Your task to perform on an android device: turn on showing notifications on the lock screen Image 0: 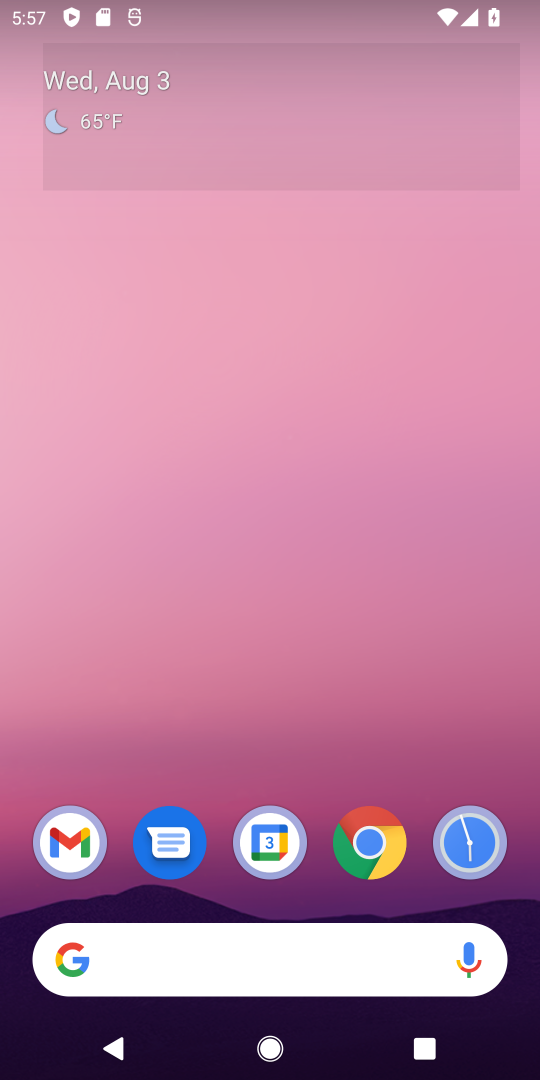
Step 0: drag from (188, 989) to (272, 245)
Your task to perform on an android device: turn on showing notifications on the lock screen Image 1: 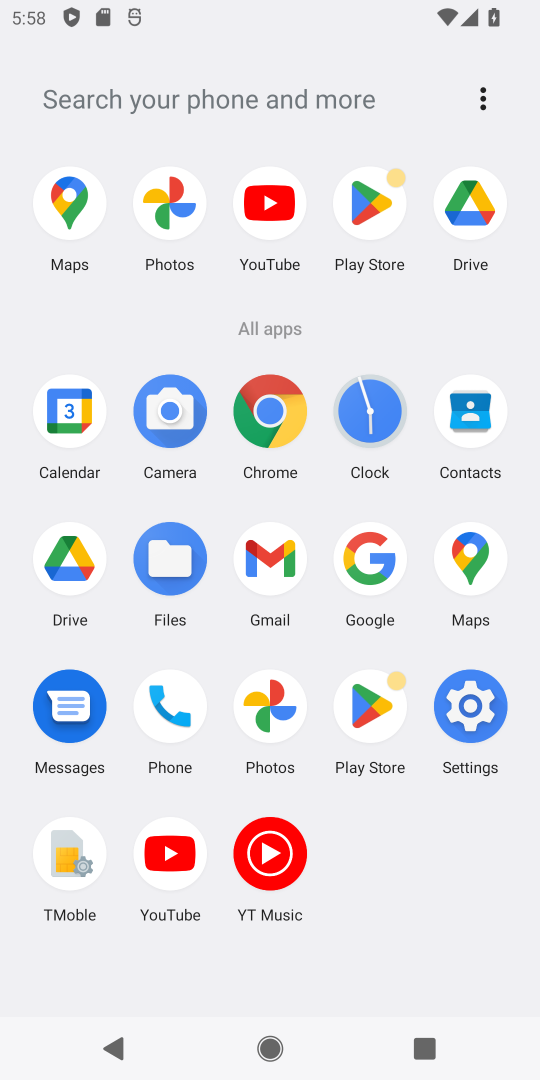
Step 1: click (484, 704)
Your task to perform on an android device: turn on showing notifications on the lock screen Image 2: 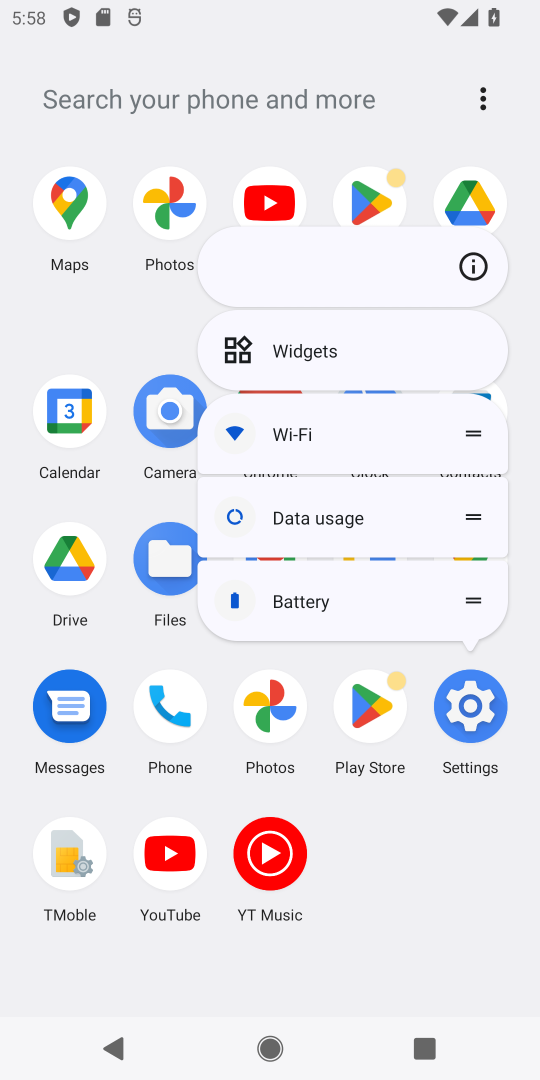
Step 2: click (484, 704)
Your task to perform on an android device: turn on showing notifications on the lock screen Image 3: 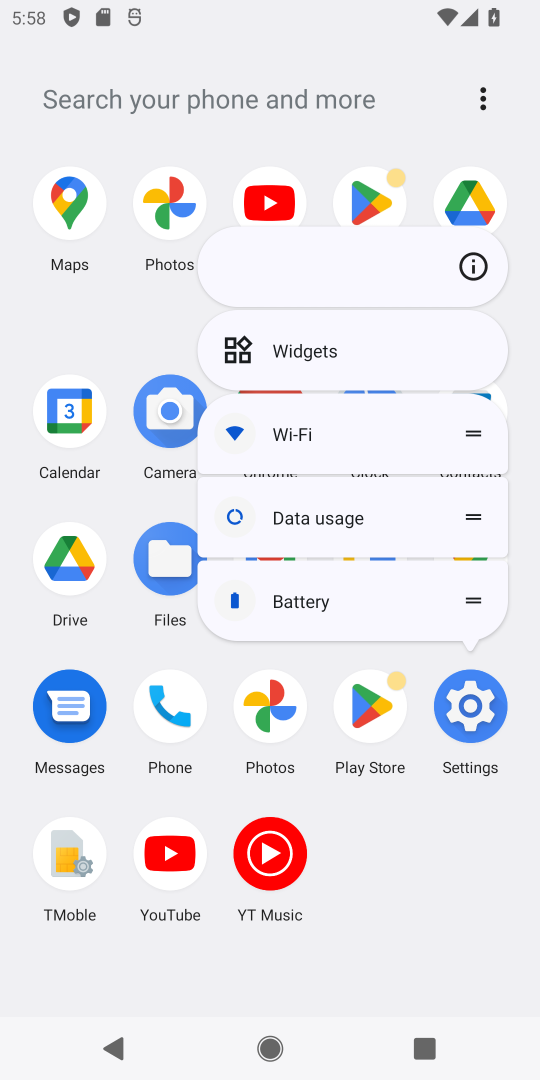
Step 3: click (484, 704)
Your task to perform on an android device: turn on showing notifications on the lock screen Image 4: 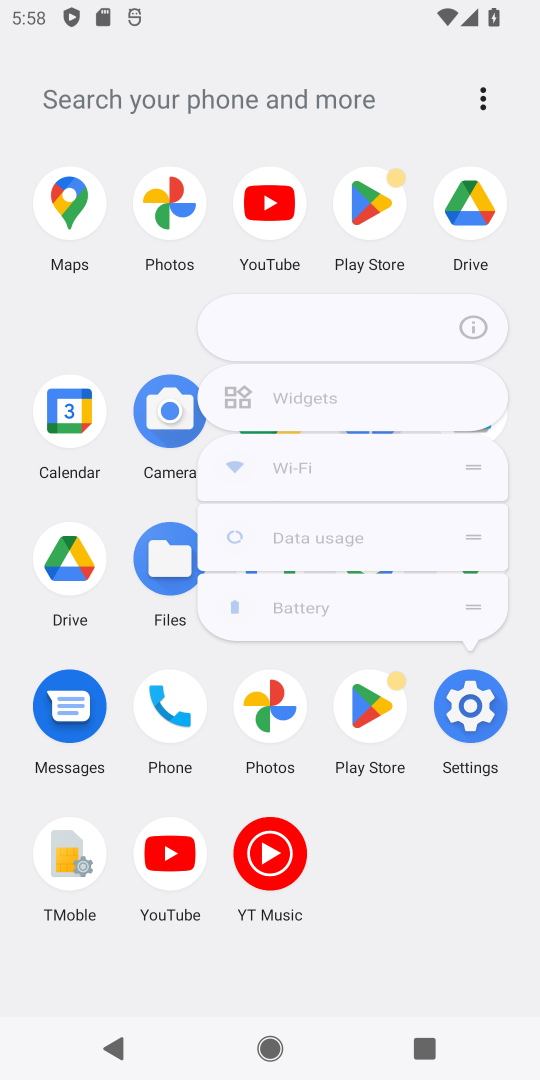
Step 4: click (484, 704)
Your task to perform on an android device: turn on showing notifications on the lock screen Image 5: 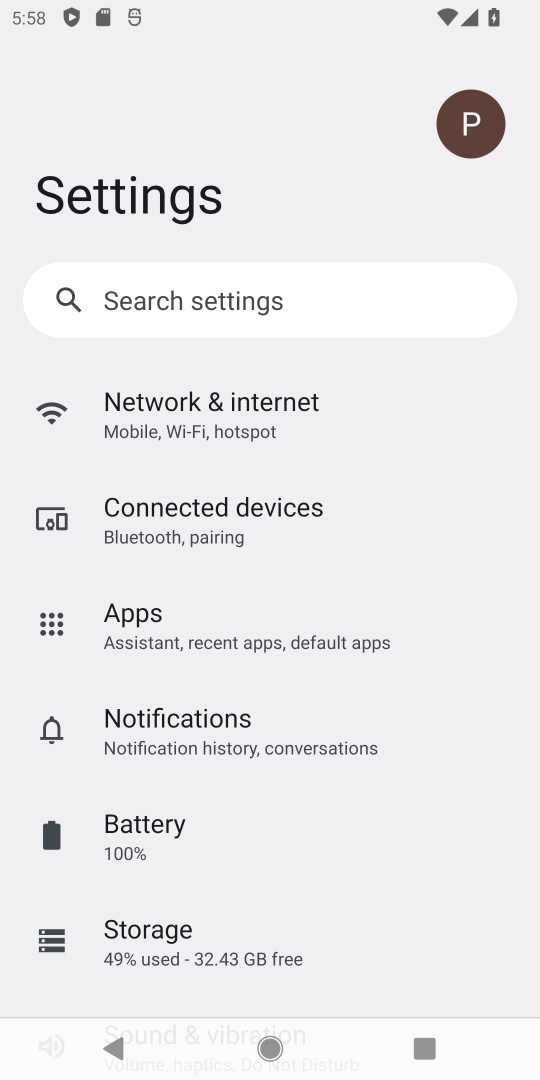
Step 5: click (254, 726)
Your task to perform on an android device: turn on showing notifications on the lock screen Image 6: 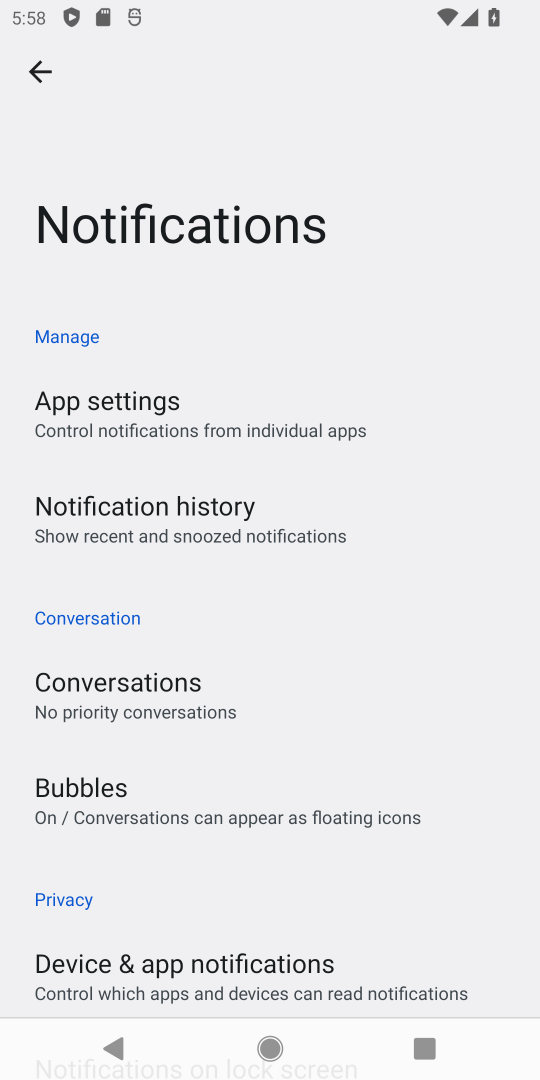
Step 6: drag from (247, 848) to (263, 16)
Your task to perform on an android device: turn on showing notifications on the lock screen Image 7: 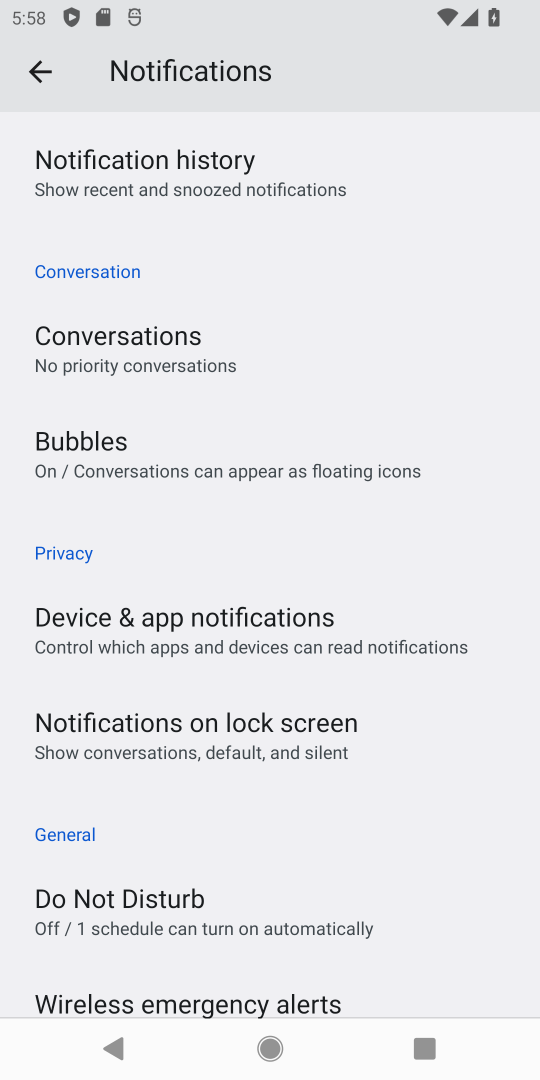
Step 7: click (288, 750)
Your task to perform on an android device: turn on showing notifications on the lock screen Image 8: 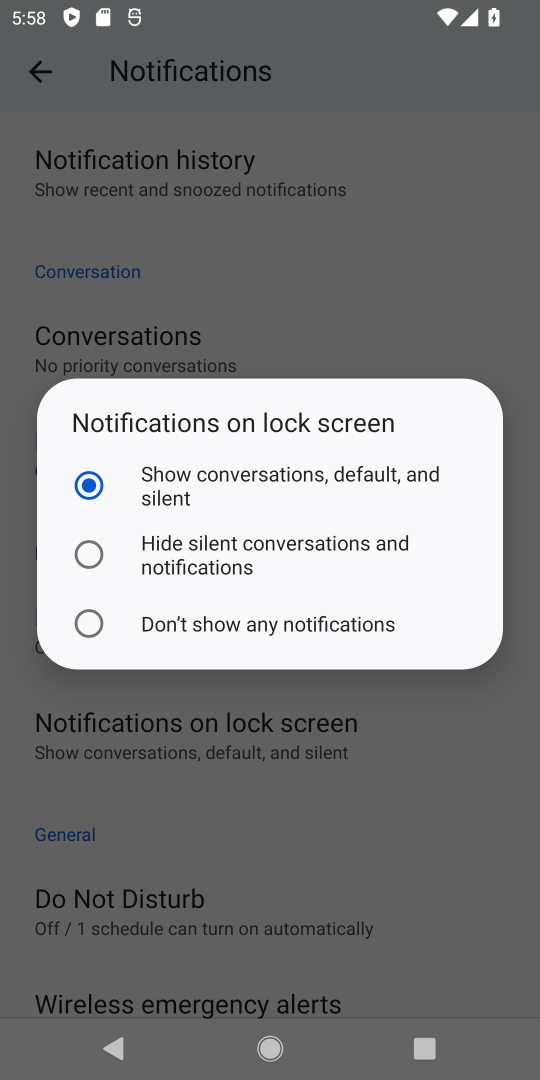
Step 8: task complete